Your task to perform on an android device: Go to settings Image 0: 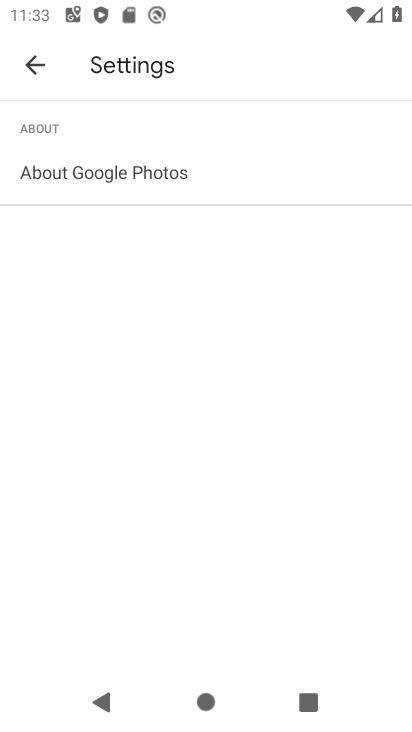
Step 0: press home button
Your task to perform on an android device: Go to settings Image 1: 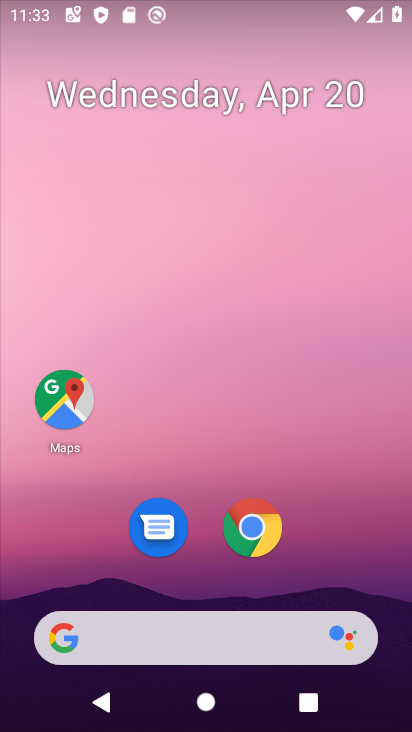
Step 1: drag from (316, 557) to (340, 107)
Your task to perform on an android device: Go to settings Image 2: 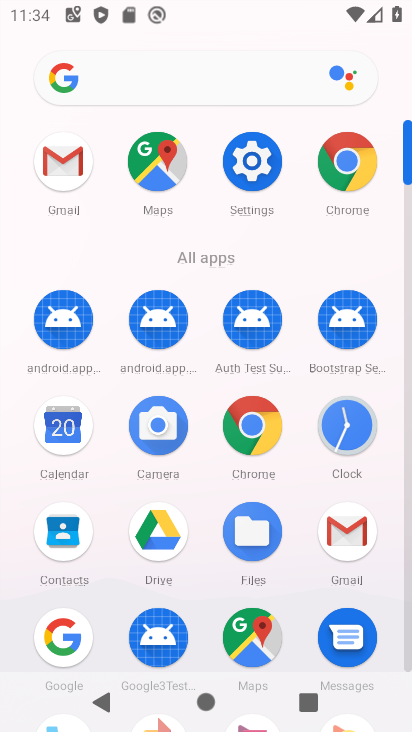
Step 2: click (260, 151)
Your task to perform on an android device: Go to settings Image 3: 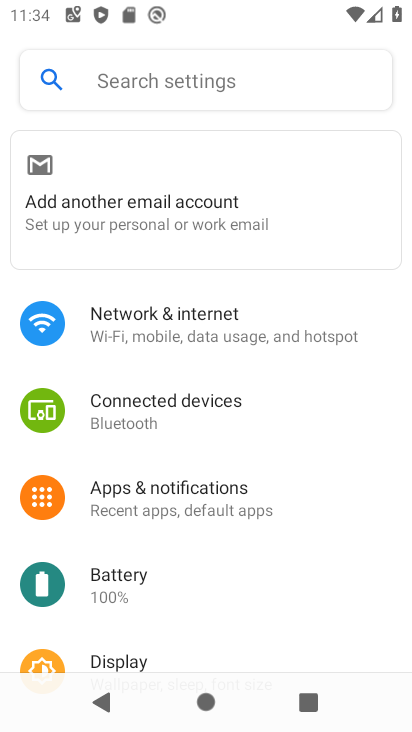
Step 3: task complete